Your task to perform on an android device: visit the assistant section in the google photos Image 0: 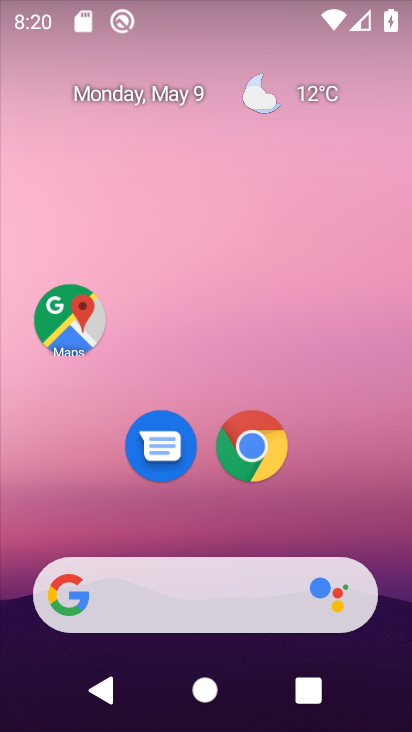
Step 0: drag from (396, 657) to (363, 166)
Your task to perform on an android device: visit the assistant section in the google photos Image 1: 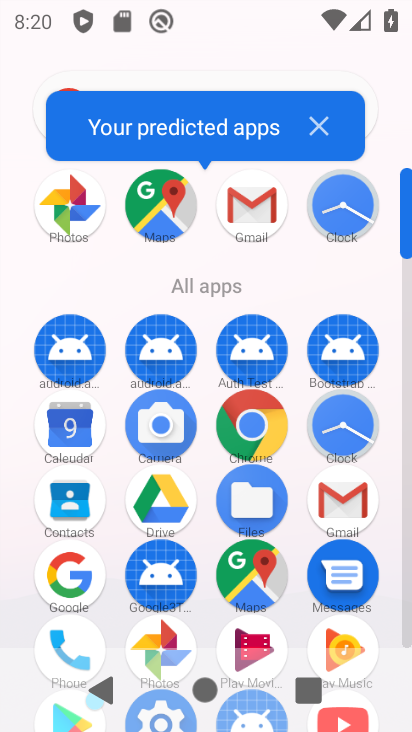
Step 1: click (406, 626)
Your task to perform on an android device: visit the assistant section in the google photos Image 2: 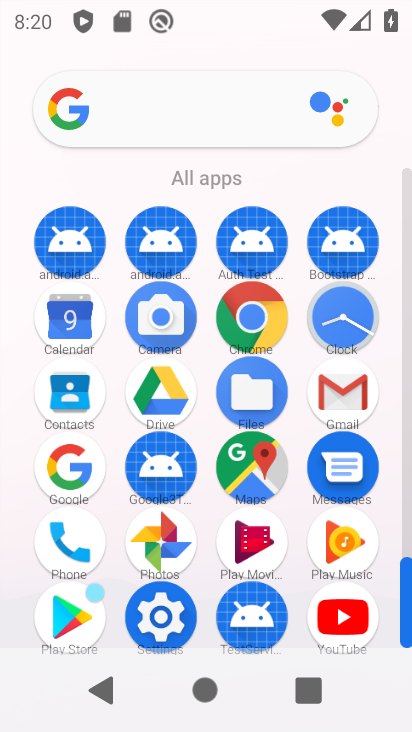
Step 2: click (160, 540)
Your task to perform on an android device: visit the assistant section in the google photos Image 3: 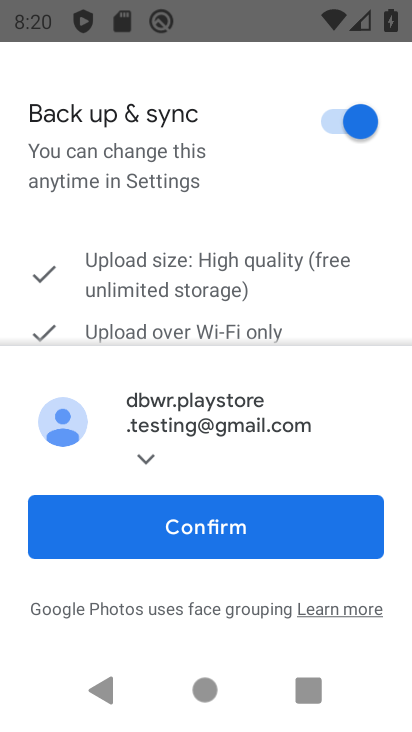
Step 3: click (194, 520)
Your task to perform on an android device: visit the assistant section in the google photos Image 4: 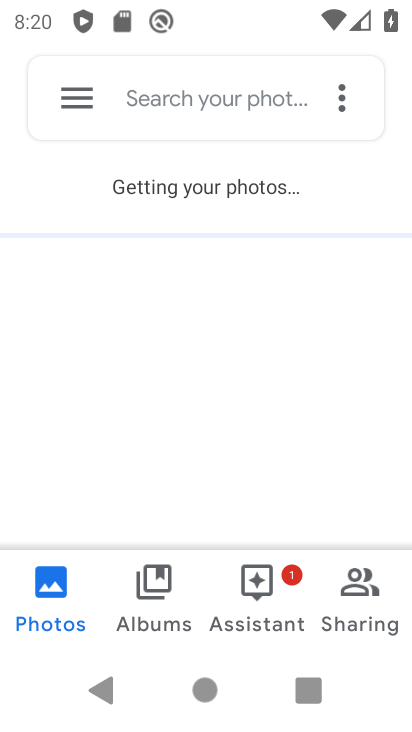
Step 4: click (252, 587)
Your task to perform on an android device: visit the assistant section in the google photos Image 5: 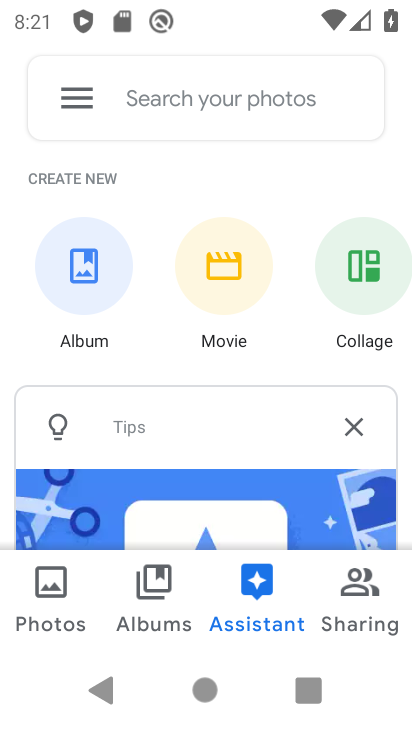
Step 5: task complete